Your task to perform on an android device: manage bookmarks in the chrome app Image 0: 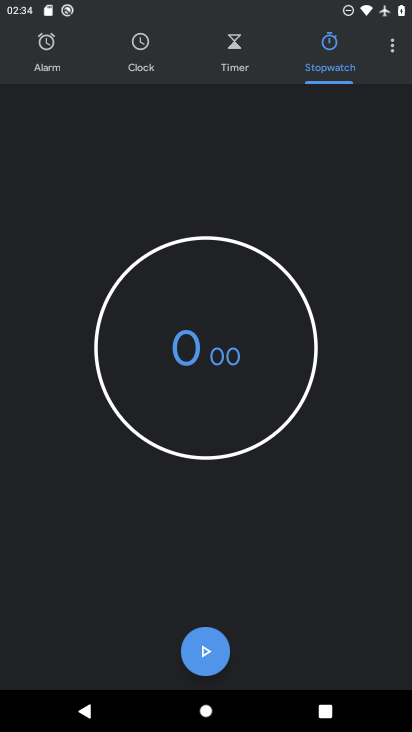
Step 0: press home button
Your task to perform on an android device: manage bookmarks in the chrome app Image 1: 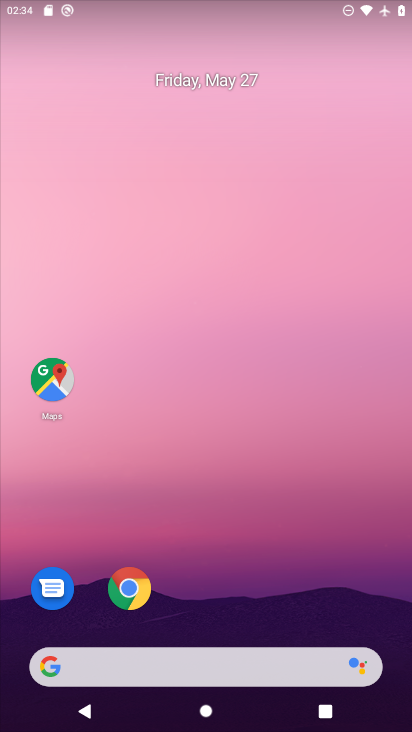
Step 1: click (127, 589)
Your task to perform on an android device: manage bookmarks in the chrome app Image 2: 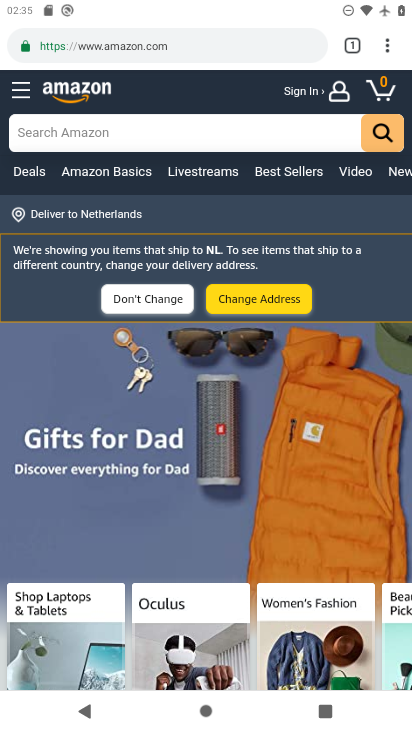
Step 2: click (392, 50)
Your task to perform on an android device: manage bookmarks in the chrome app Image 3: 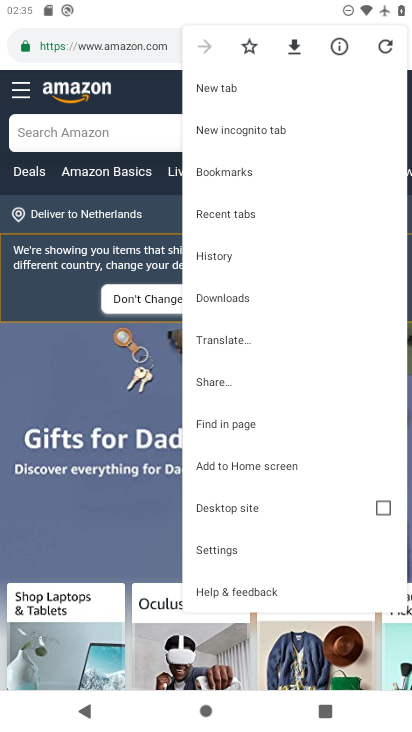
Step 3: click (228, 175)
Your task to perform on an android device: manage bookmarks in the chrome app Image 4: 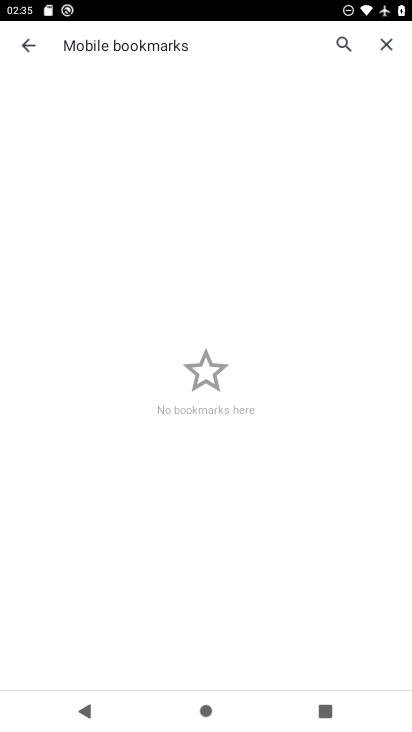
Step 4: task complete